Your task to perform on an android device: Go to sound settings Image 0: 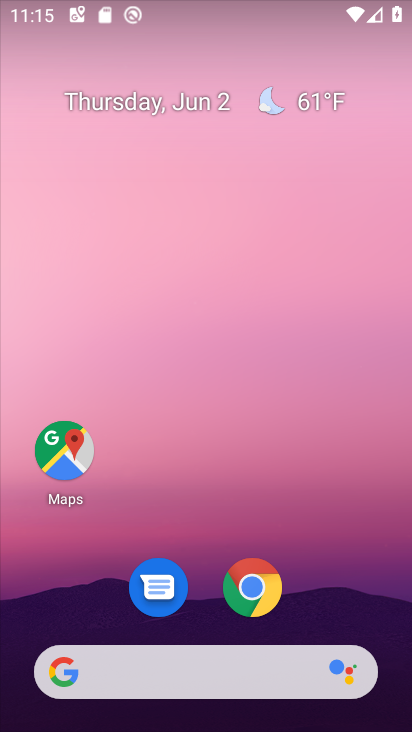
Step 0: drag from (219, 108) to (215, 7)
Your task to perform on an android device: Go to sound settings Image 1: 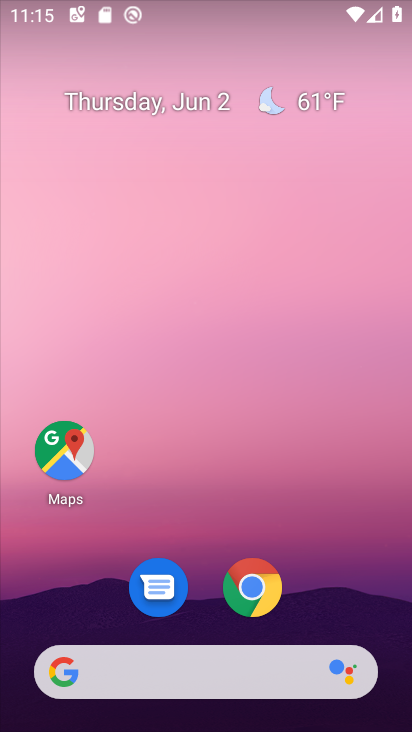
Step 1: drag from (203, 524) to (229, 0)
Your task to perform on an android device: Go to sound settings Image 2: 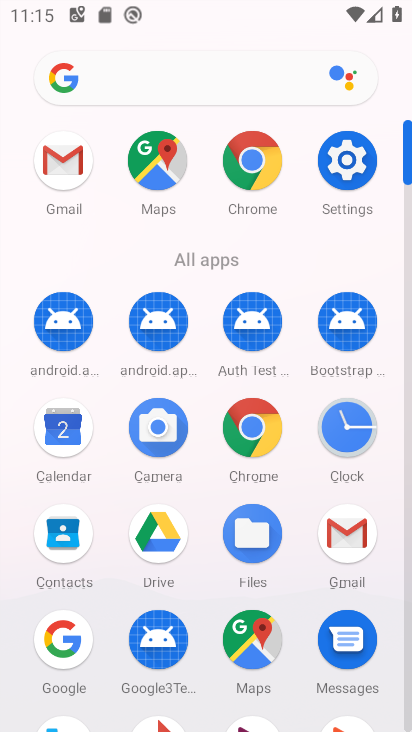
Step 2: click (335, 150)
Your task to perform on an android device: Go to sound settings Image 3: 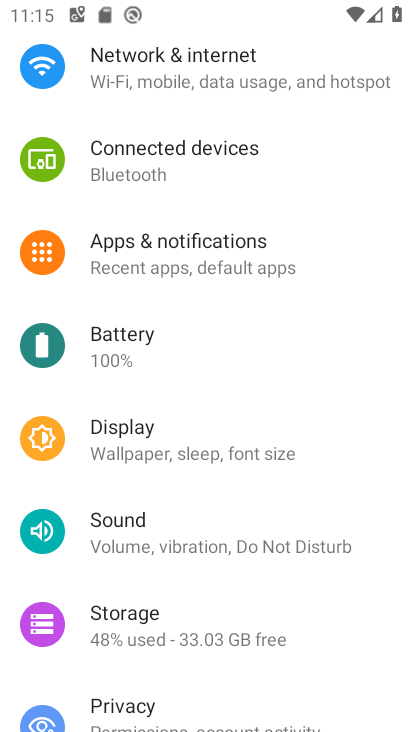
Step 3: click (199, 534)
Your task to perform on an android device: Go to sound settings Image 4: 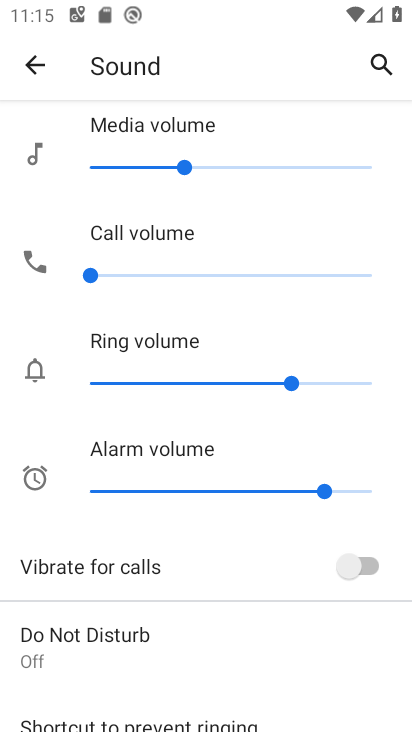
Step 4: task complete